Your task to perform on an android device: create a new album in the google photos Image 0: 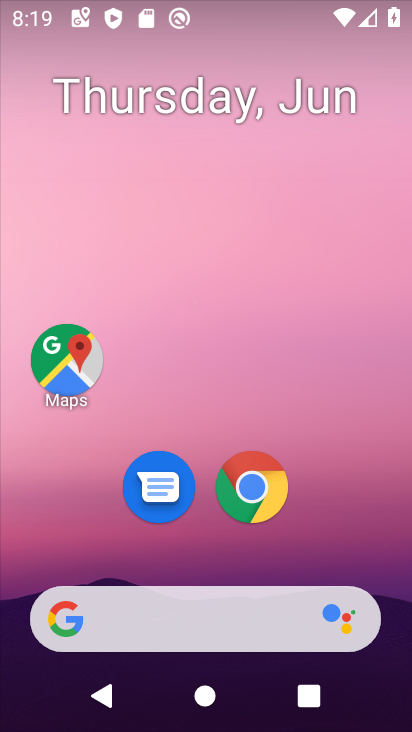
Step 0: drag from (213, 558) to (240, 235)
Your task to perform on an android device: create a new album in the google photos Image 1: 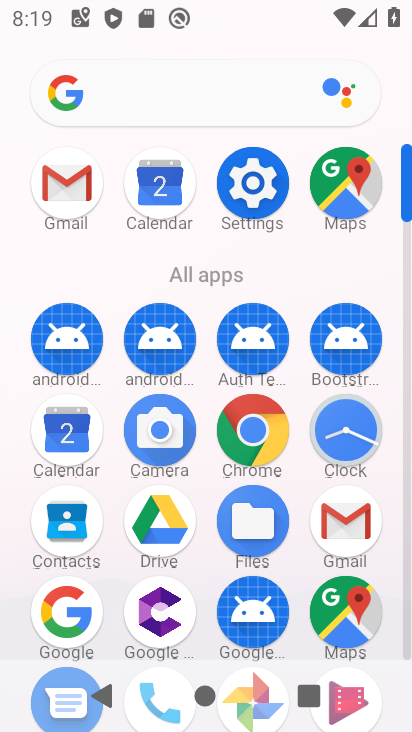
Step 1: drag from (205, 571) to (204, 204)
Your task to perform on an android device: create a new album in the google photos Image 2: 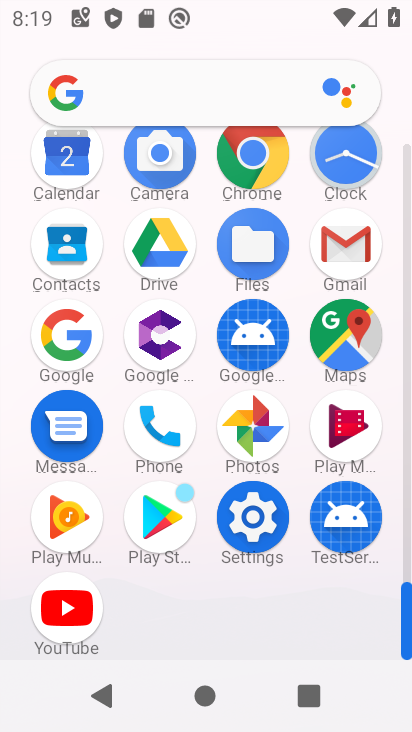
Step 2: click (255, 412)
Your task to perform on an android device: create a new album in the google photos Image 3: 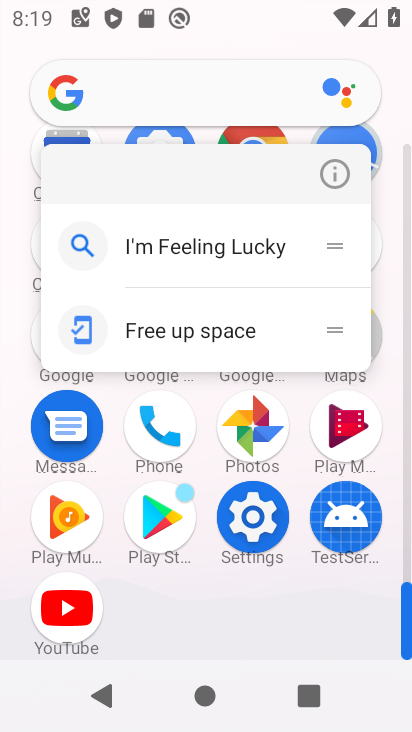
Step 3: click (322, 175)
Your task to perform on an android device: create a new album in the google photos Image 4: 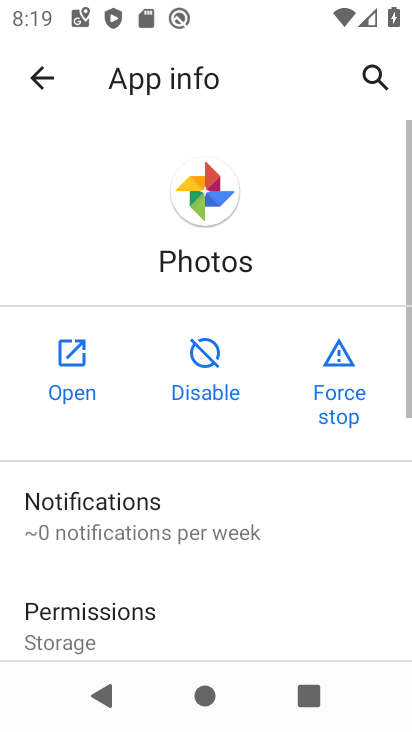
Step 4: click (81, 365)
Your task to perform on an android device: create a new album in the google photos Image 5: 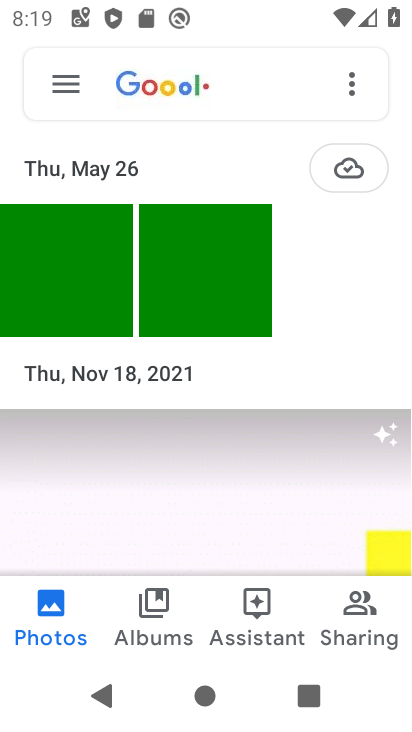
Step 5: drag from (187, 429) to (238, 164)
Your task to perform on an android device: create a new album in the google photos Image 6: 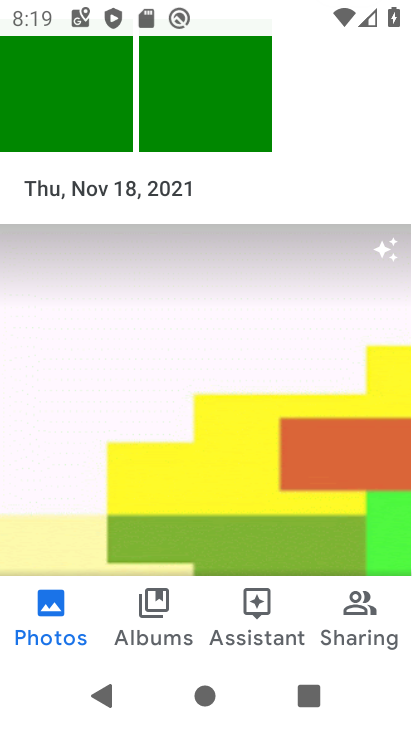
Step 6: drag from (215, 317) to (329, 725)
Your task to perform on an android device: create a new album in the google photos Image 7: 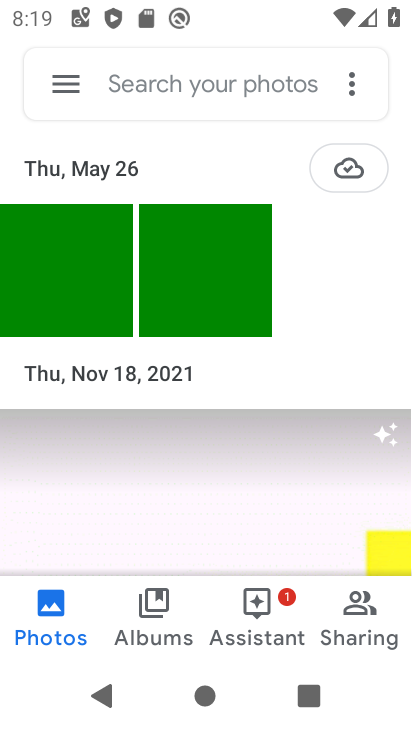
Step 7: click (134, 606)
Your task to perform on an android device: create a new album in the google photos Image 8: 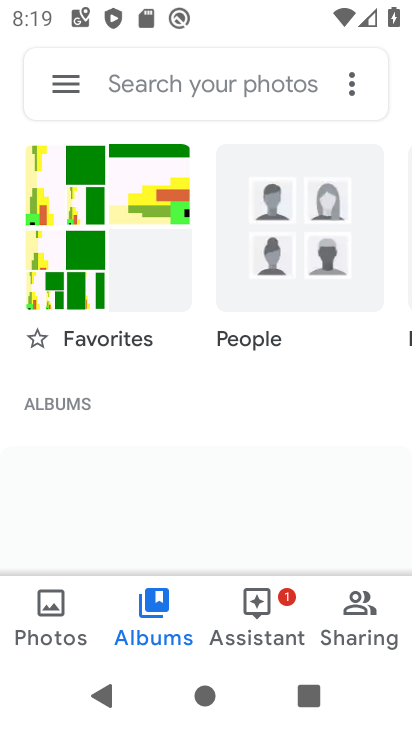
Step 8: task complete